Your task to perform on an android device: toggle notifications settings in the gmail app Image 0: 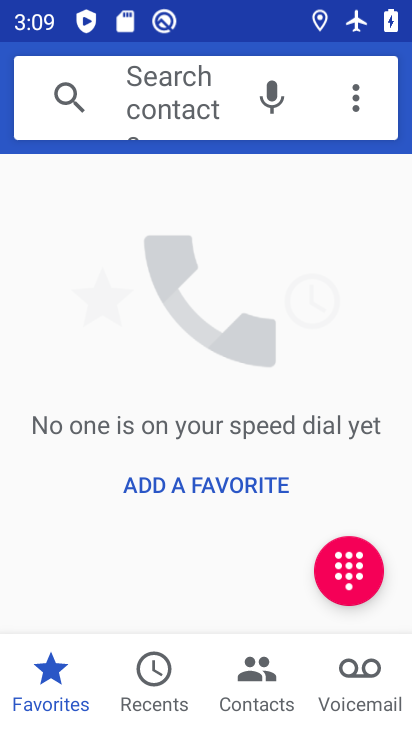
Step 0: drag from (233, 549) to (401, 295)
Your task to perform on an android device: toggle notifications settings in the gmail app Image 1: 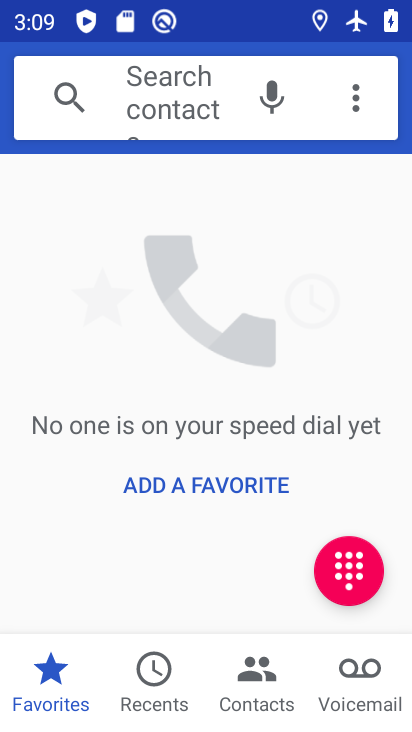
Step 1: press home button
Your task to perform on an android device: toggle notifications settings in the gmail app Image 2: 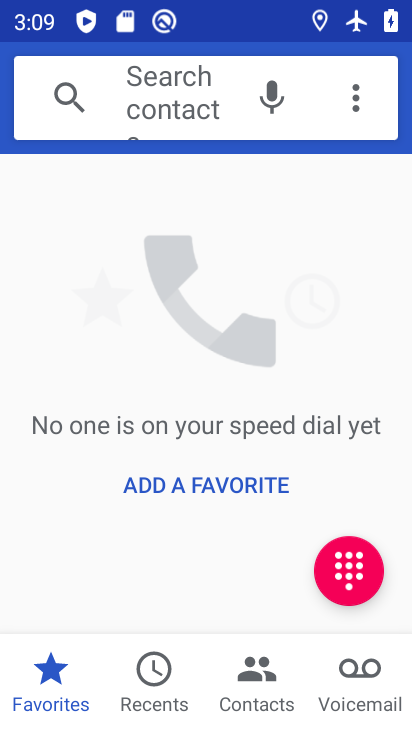
Step 2: drag from (401, 295) to (409, 376)
Your task to perform on an android device: toggle notifications settings in the gmail app Image 3: 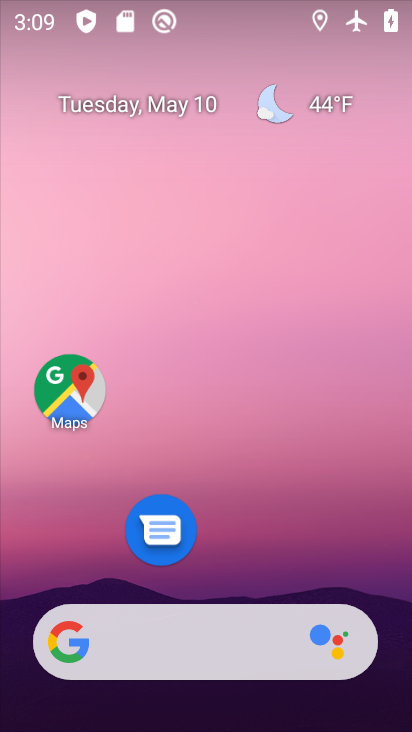
Step 3: drag from (263, 536) to (312, 110)
Your task to perform on an android device: toggle notifications settings in the gmail app Image 4: 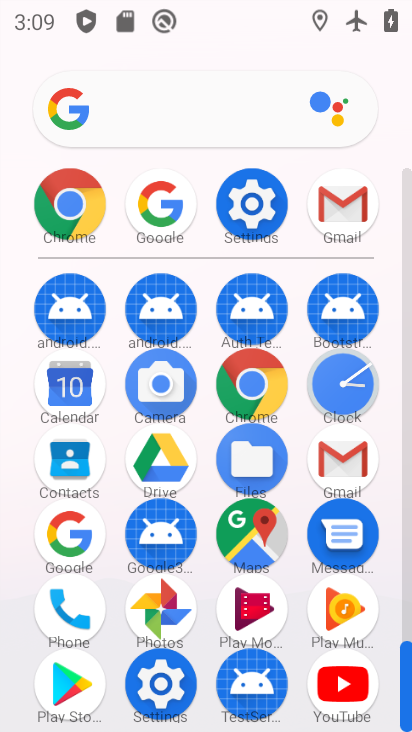
Step 4: click (264, 196)
Your task to perform on an android device: toggle notifications settings in the gmail app Image 5: 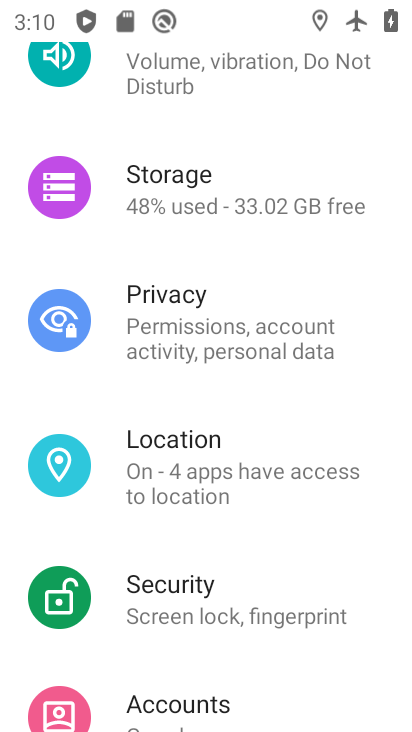
Step 5: drag from (196, 136) to (252, 598)
Your task to perform on an android device: toggle notifications settings in the gmail app Image 6: 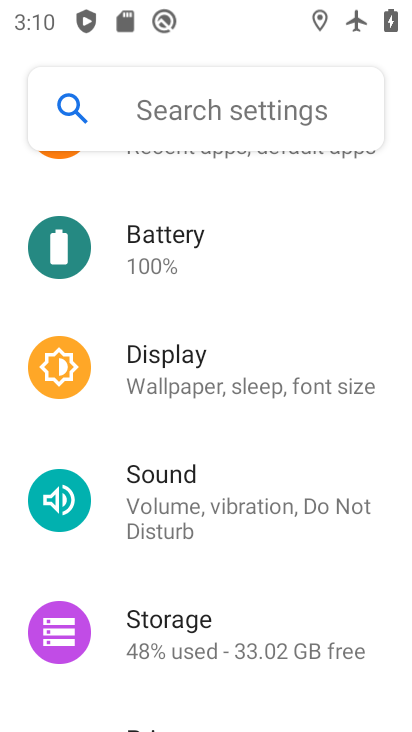
Step 6: drag from (191, 239) to (218, 512)
Your task to perform on an android device: toggle notifications settings in the gmail app Image 7: 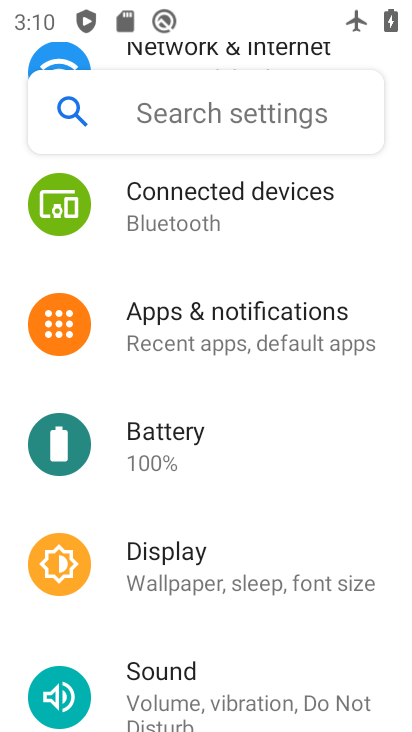
Step 7: click (165, 332)
Your task to perform on an android device: toggle notifications settings in the gmail app Image 8: 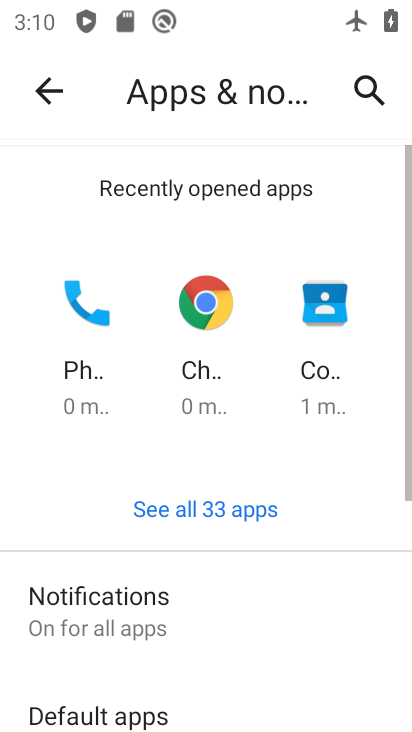
Step 8: click (130, 627)
Your task to perform on an android device: toggle notifications settings in the gmail app Image 9: 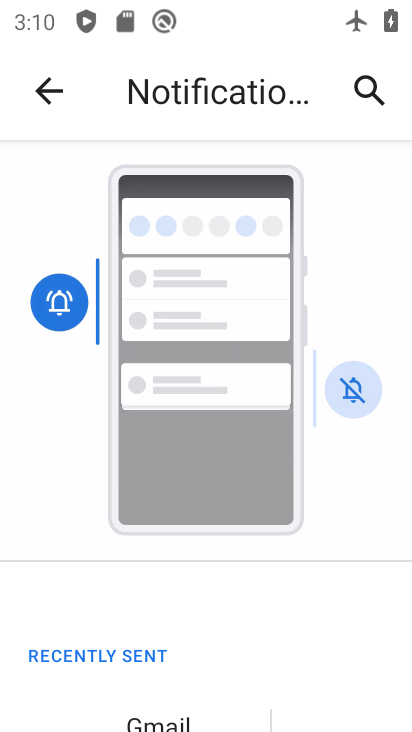
Step 9: drag from (184, 635) to (189, 224)
Your task to perform on an android device: toggle notifications settings in the gmail app Image 10: 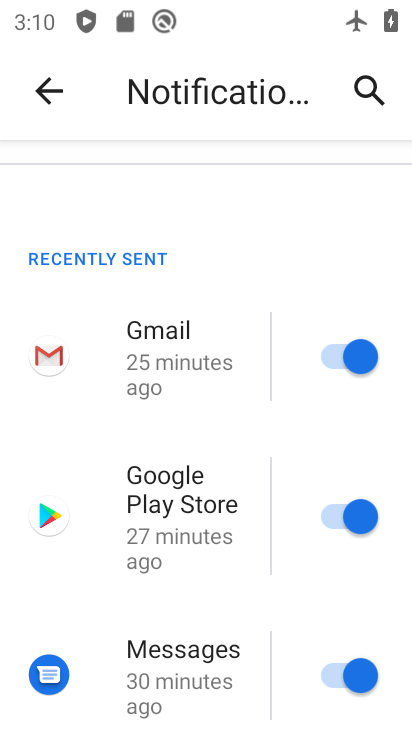
Step 10: drag from (200, 726) to (279, 108)
Your task to perform on an android device: toggle notifications settings in the gmail app Image 11: 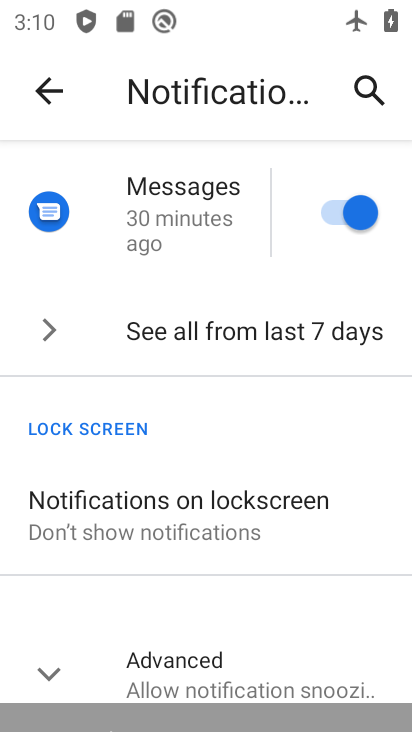
Step 11: drag from (227, 593) to (255, 341)
Your task to perform on an android device: toggle notifications settings in the gmail app Image 12: 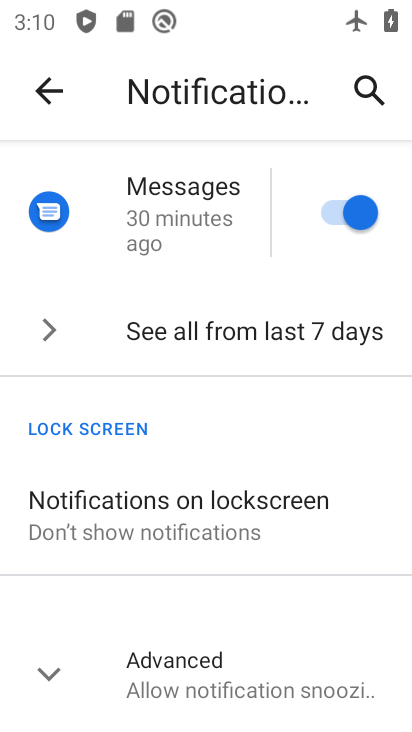
Step 12: click (156, 687)
Your task to perform on an android device: toggle notifications settings in the gmail app Image 13: 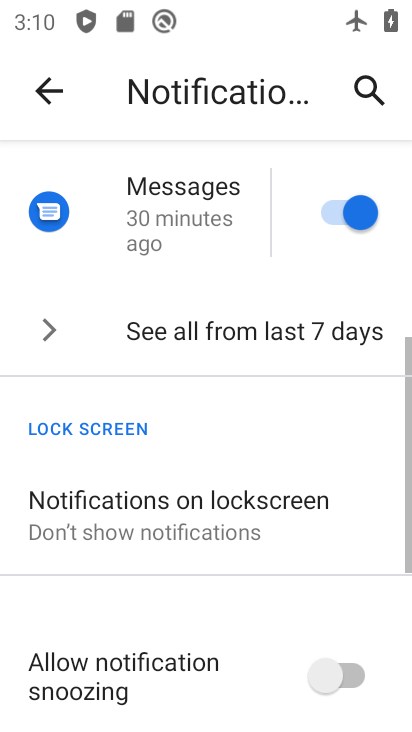
Step 13: drag from (205, 651) to (292, 84)
Your task to perform on an android device: toggle notifications settings in the gmail app Image 14: 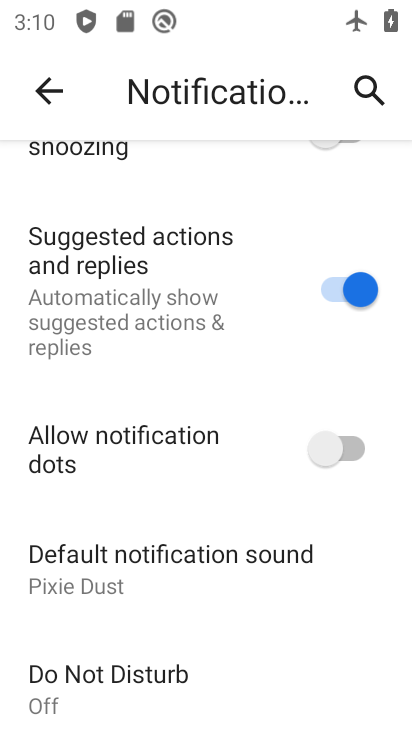
Step 14: drag from (231, 588) to (268, 285)
Your task to perform on an android device: toggle notifications settings in the gmail app Image 15: 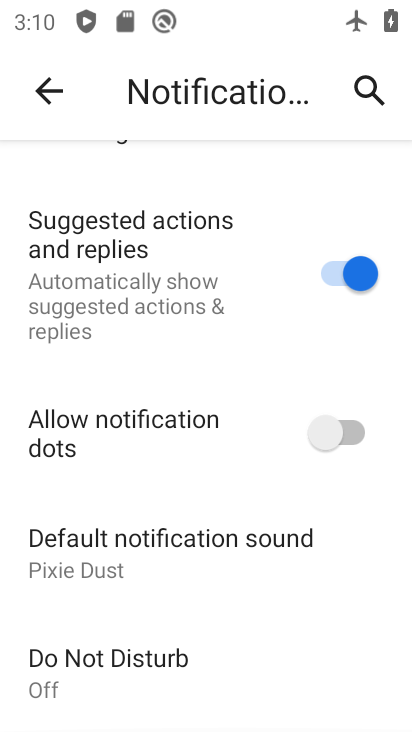
Step 15: click (333, 429)
Your task to perform on an android device: toggle notifications settings in the gmail app Image 16: 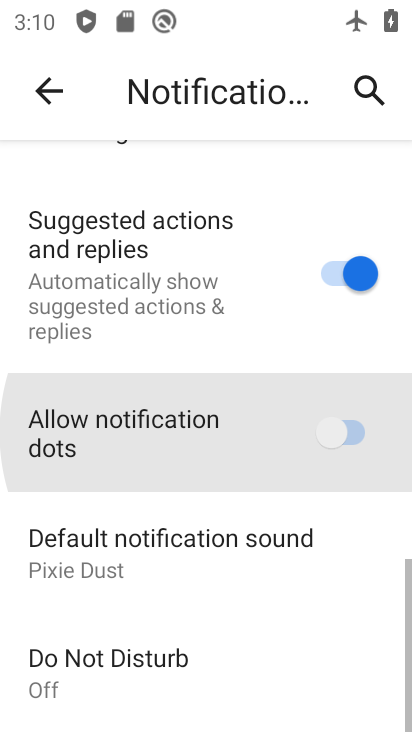
Step 16: click (368, 245)
Your task to perform on an android device: toggle notifications settings in the gmail app Image 17: 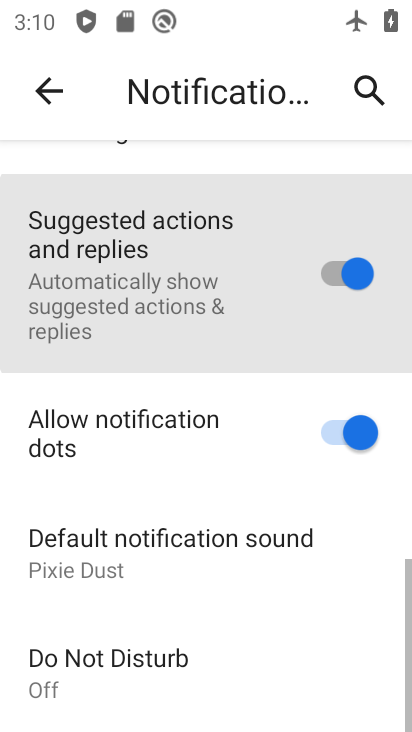
Step 17: drag from (256, 250) to (277, 525)
Your task to perform on an android device: toggle notifications settings in the gmail app Image 18: 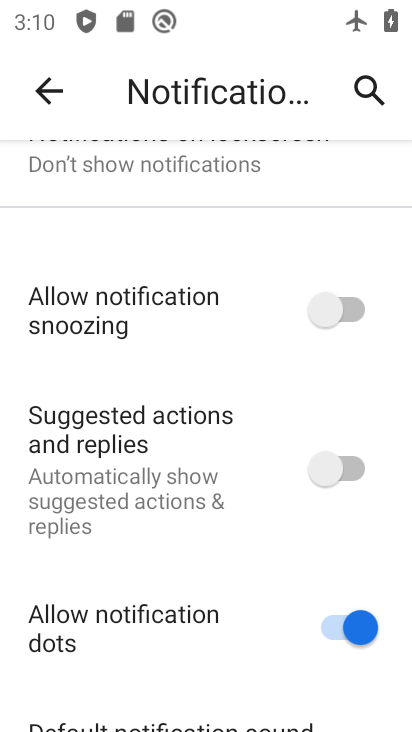
Step 18: click (321, 307)
Your task to perform on an android device: toggle notifications settings in the gmail app Image 19: 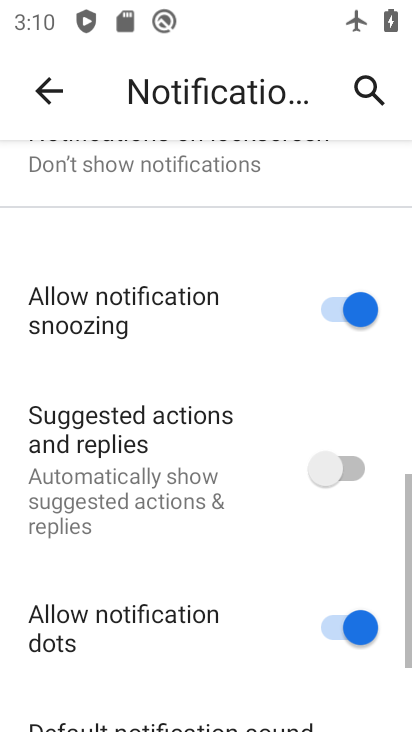
Step 19: task complete